Your task to perform on an android device: show emergency info Image 0: 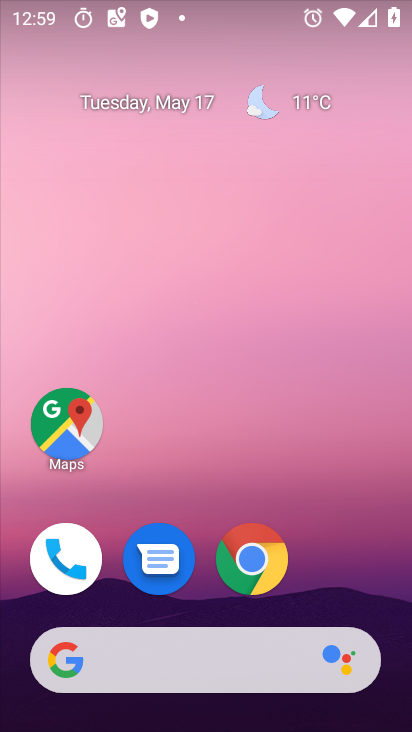
Step 0: drag from (362, 525) to (299, 150)
Your task to perform on an android device: show emergency info Image 1: 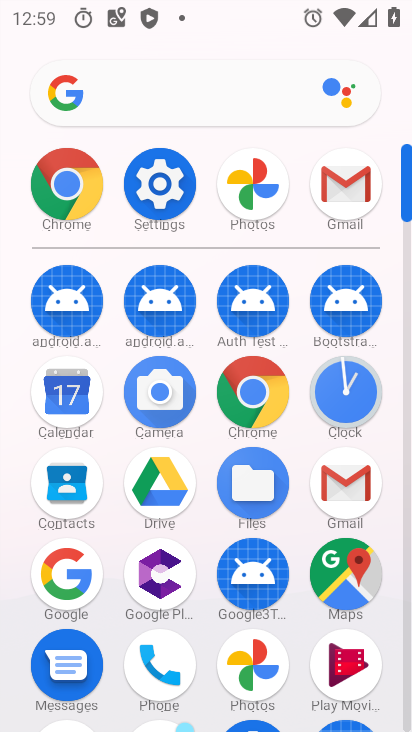
Step 1: click (168, 199)
Your task to perform on an android device: show emergency info Image 2: 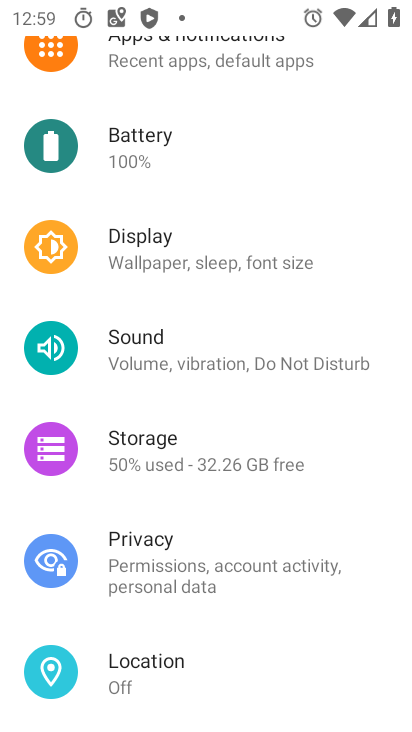
Step 2: drag from (288, 616) to (239, 118)
Your task to perform on an android device: show emergency info Image 3: 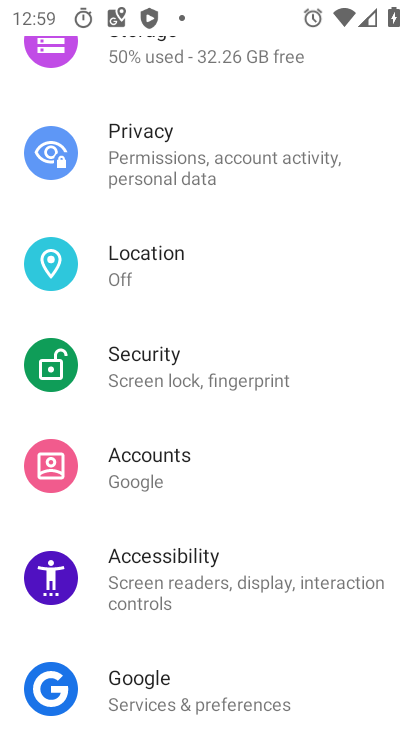
Step 3: drag from (192, 611) to (222, 126)
Your task to perform on an android device: show emergency info Image 4: 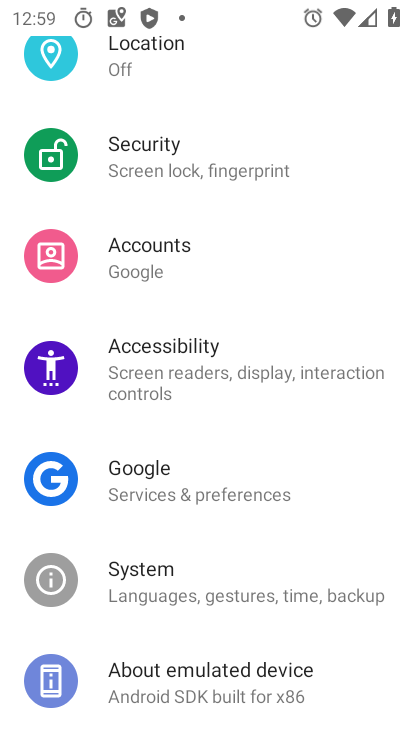
Step 4: click (172, 687)
Your task to perform on an android device: show emergency info Image 5: 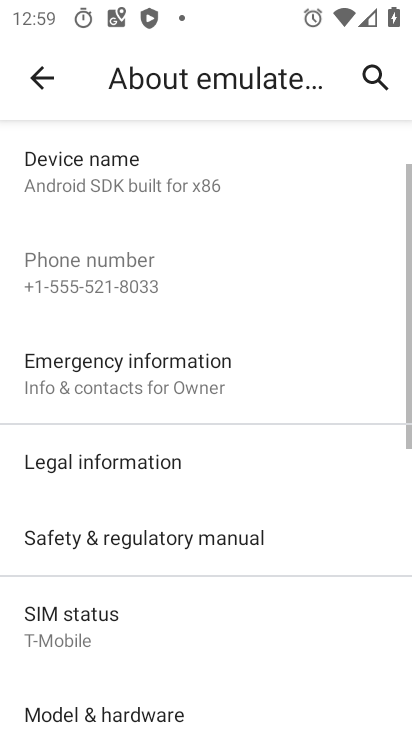
Step 5: click (172, 380)
Your task to perform on an android device: show emergency info Image 6: 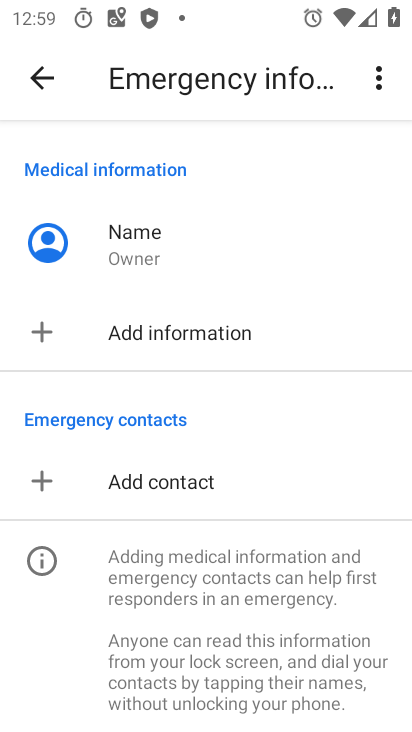
Step 6: task complete